Your task to perform on an android device: toggle translation in the chrome app Image 0: 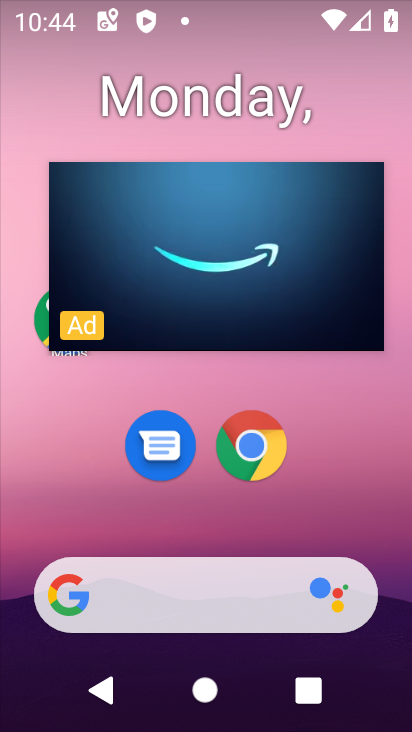
Step 0: click (318, 209)
Your task to perform on an android device: toggle translation in the chrome app Image 1: 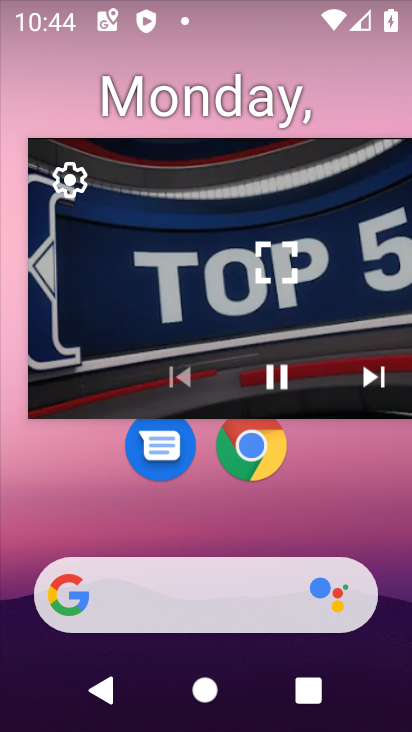
Step 1: click (388, 162)
Your task to perform on an android device: toggle translation in the chrome app Image 2: 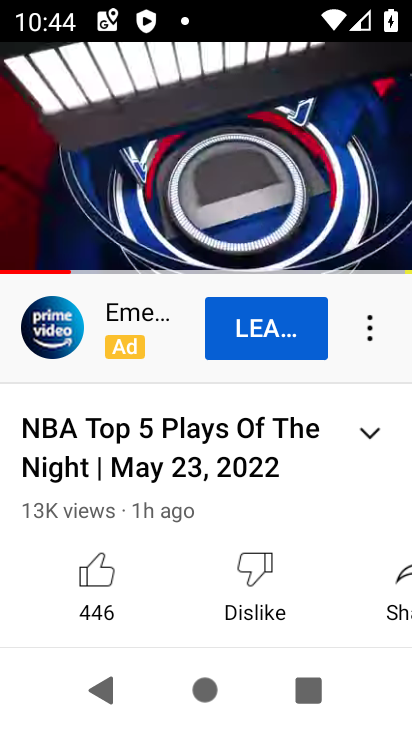
Step 2: click (193, 121)
Your task to perform on an android device: toggle translation in the chrome app Image 3: 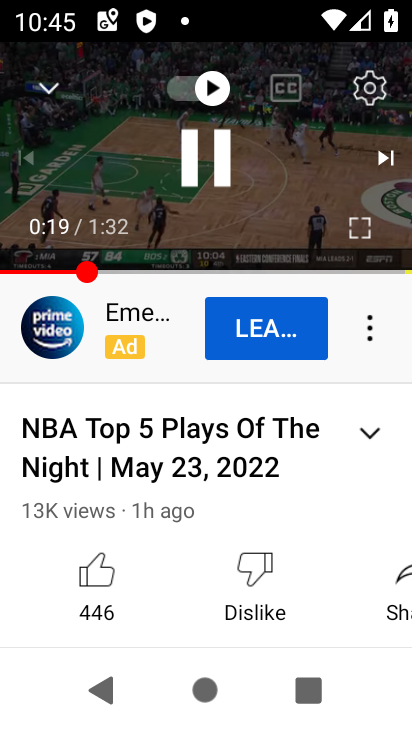
Step 3: click (195, 163)
Your task to perform on an android device: toggle translation in the chrome app Image 4: 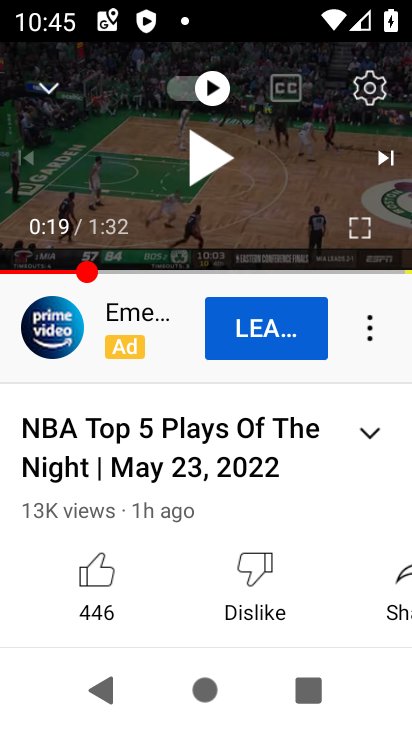
Step 4: task complete